Your task to perform on an android device: What's on my calendar today? Image 0: 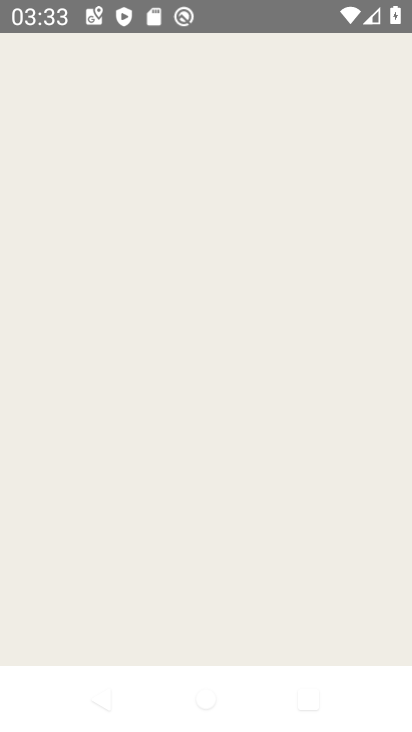
Step 0: click (81, 377)
Your task to perform on an android device: What's on my calendar today? Image 1: 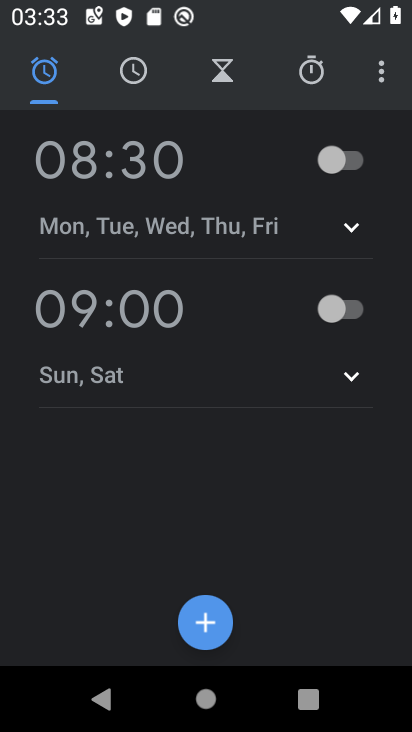
Step 1: press home button
Your task to perform on an android device: What's on my calendar today? Image 2: 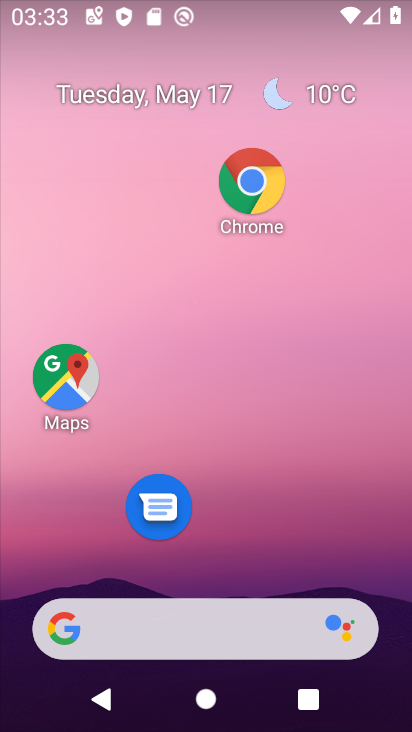
Step 2: click (170, 83)
Your task to perform on an android device: What's on my calendar today? Image 3: 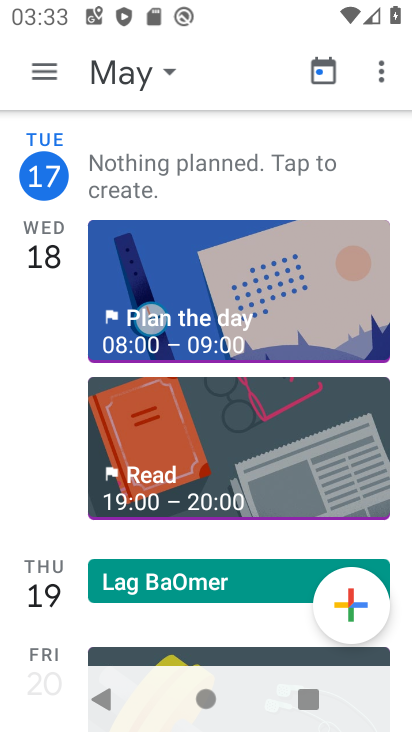
Step 3: click (171, 86)
Your task to perform on an android device: What's on my calendar today? Image 4: 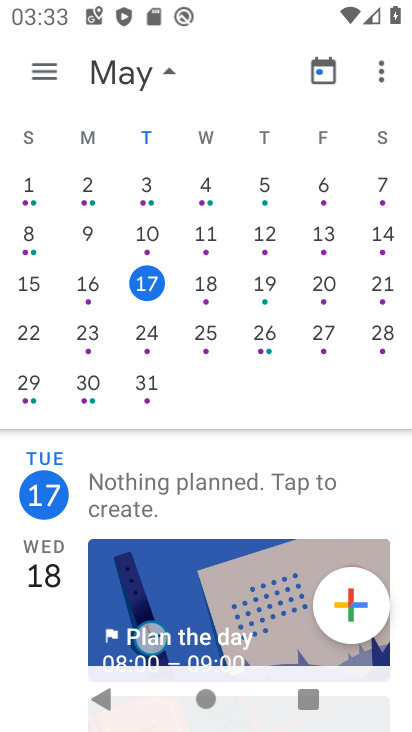
Step 4: task complete